Your task to perform on an android device: Open maps Image 0: 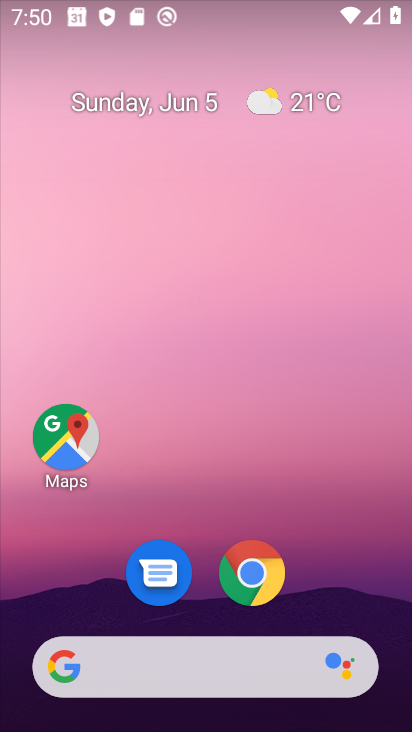
Step 0: click (65, 425)
Your task to perform on an android device: Open maps Image 1: 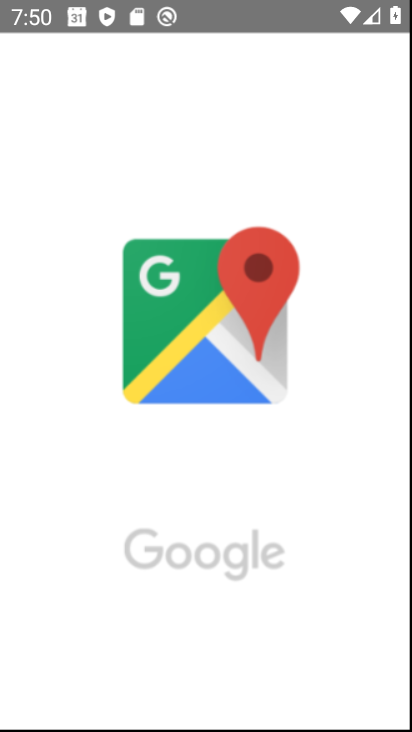
Step 1: task complete